Your task to perform on an android device: refresh tabs in the chrome app Image 0: 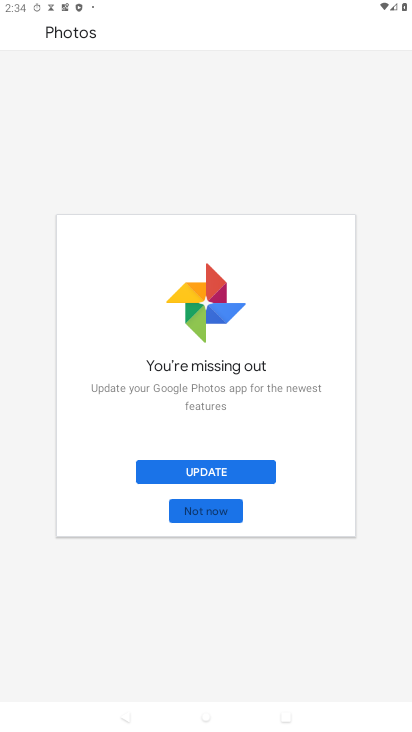
Step 0: press home button
Your task to perform on an android device: refresh tabs in the chrome app Image 1: 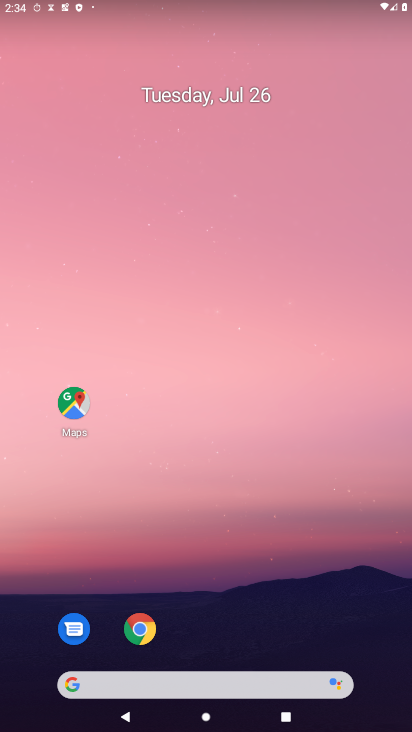
Step 1: drag from (287, 670) to (320, 36)
Your task to perform on an android device: refresh tabs in the chrome app Image 2: 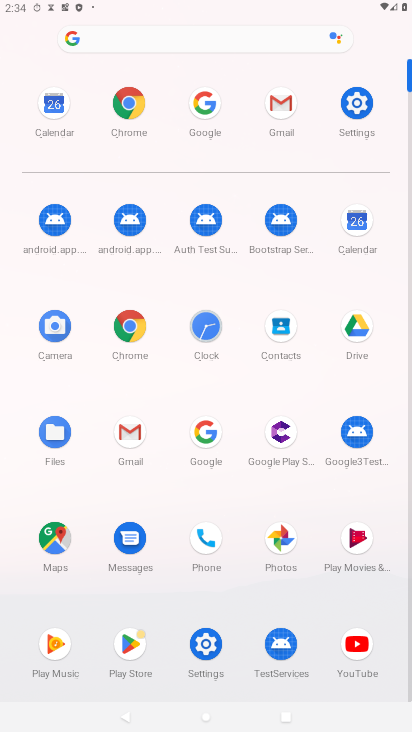
Step 2: click (136, 316)
Your task to perform on an android device: refresh tabs in the chrome app Image 3: 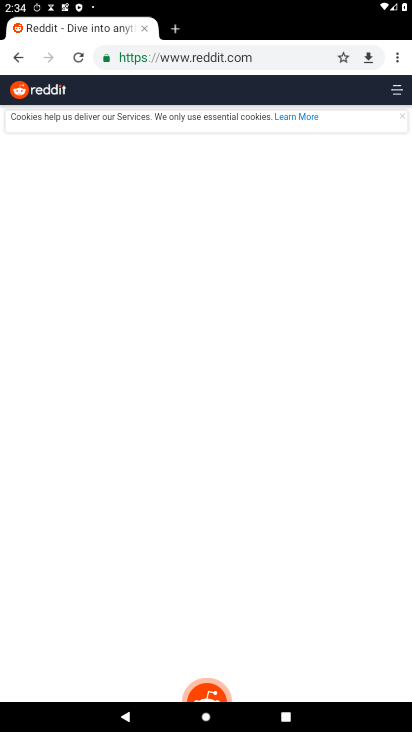
Step 3: click (82, 58)
Your task to perform on an android device: refresh tabs in the chrome app Image 4: 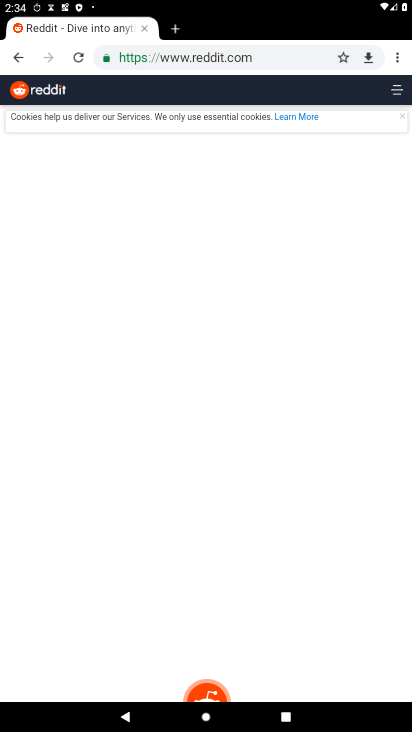
Step 4: task complete